Your task to perform on an android device: Go to Wikipedia Image 0: 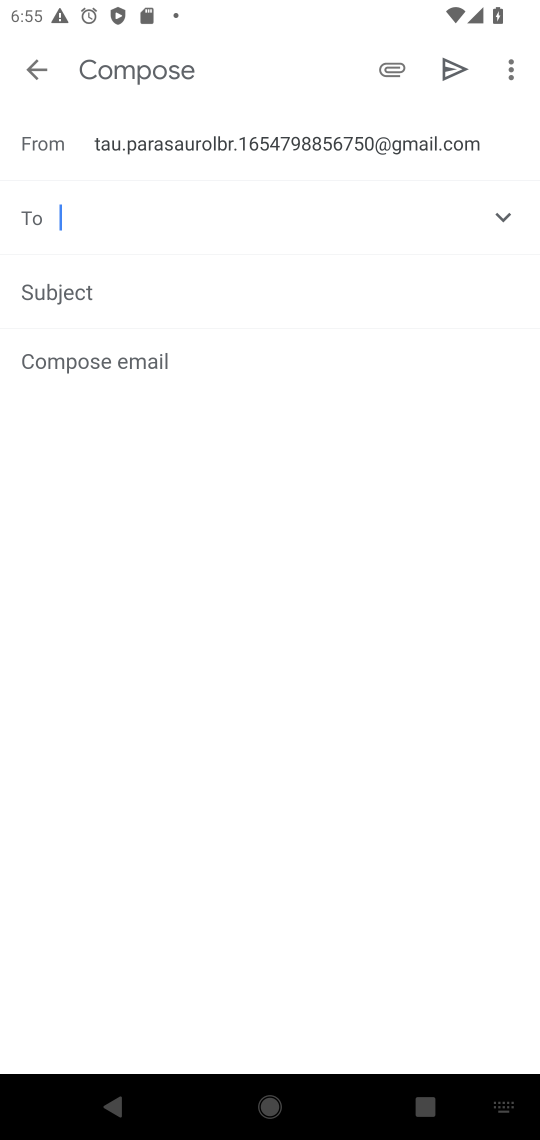
Step 0: press home button
Your task to perform on an android device: Go to Wikipedia Image 1: 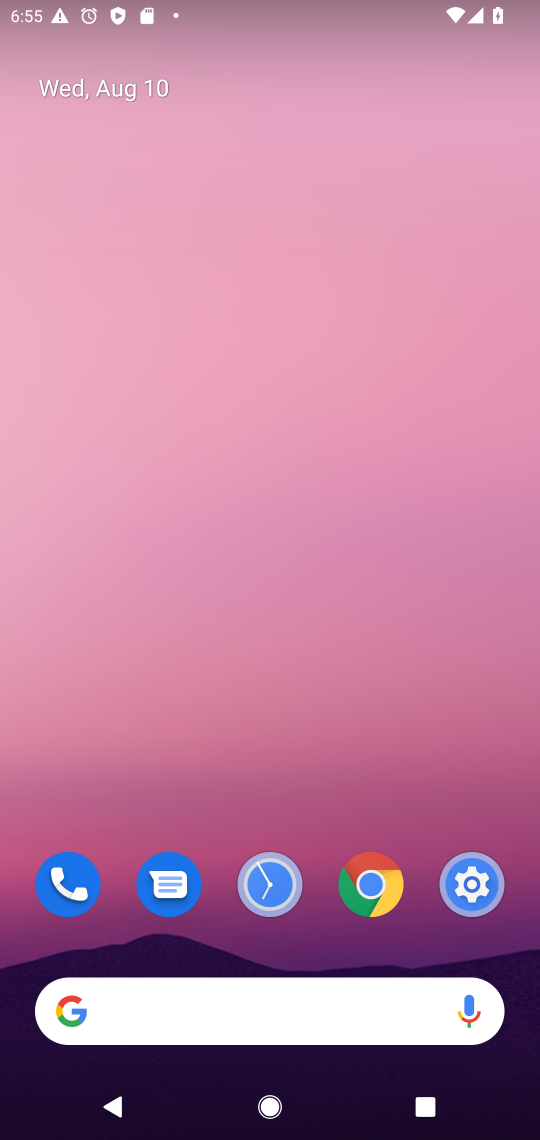
Step 1: click (139, 1016)
Your task to perform on an android device: Go to Wikipedia Image 2: 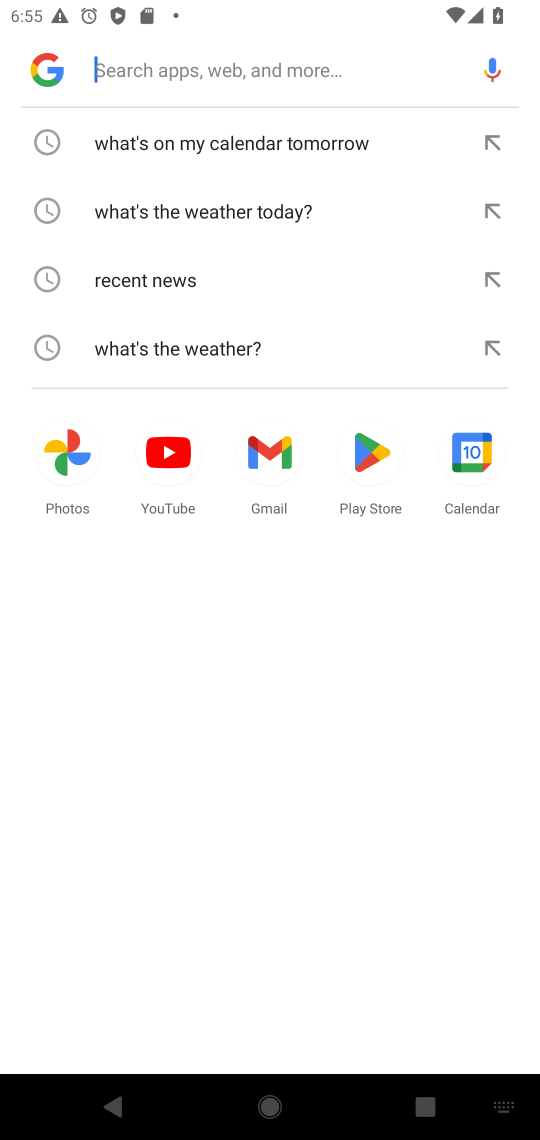
Step 2: type "Wikipedia"
Your task to perform on an android device: Go to Wikipedia Image 3: 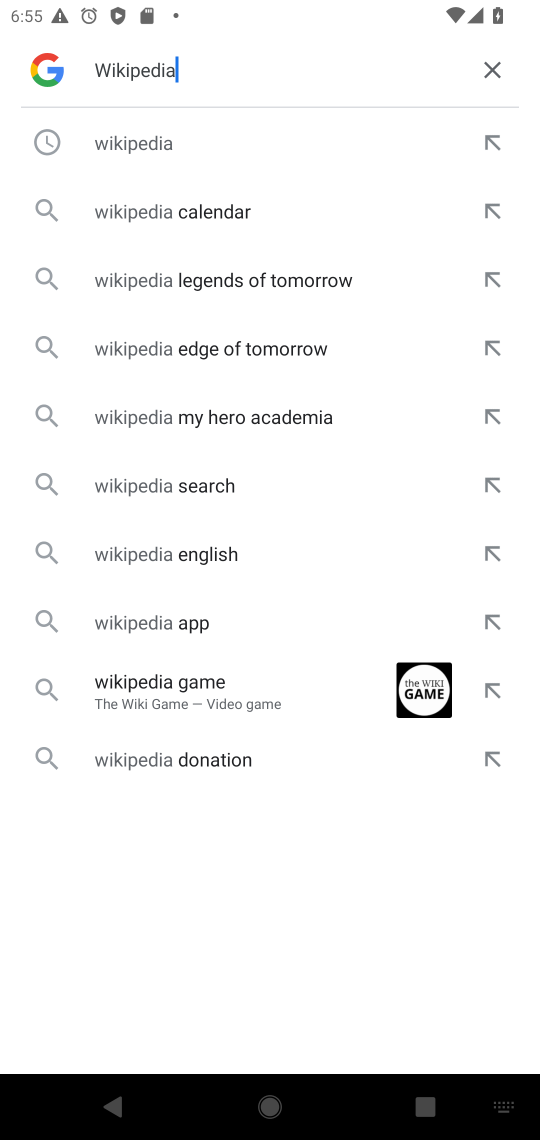
Step 3: click (149, 144)
Your task to perform on an android device: Go to Wikipedia Image 4: 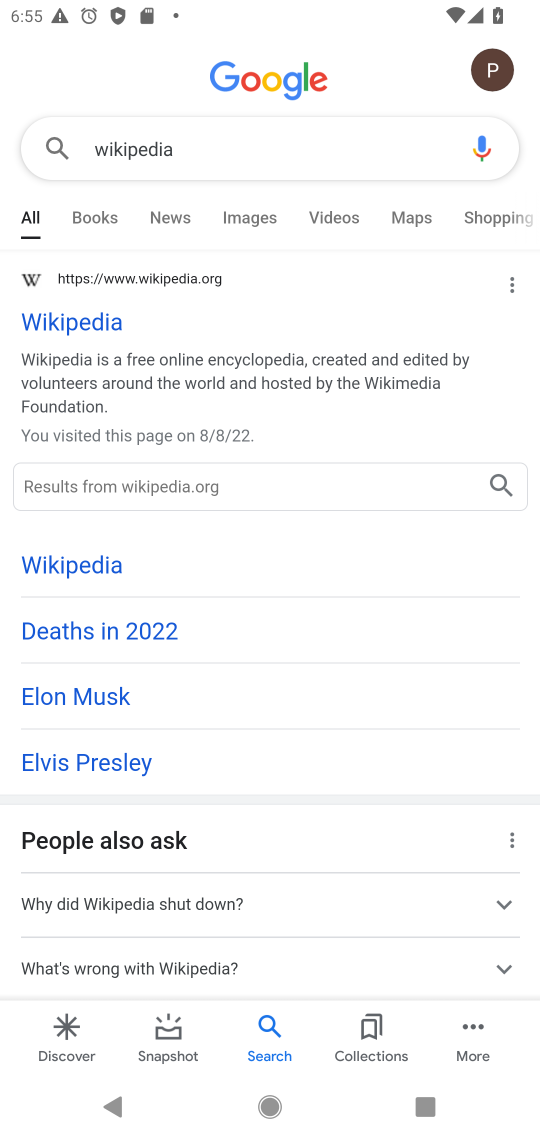
Step 4: task complete